Your task to perform on an android device: delete location history Image 0: 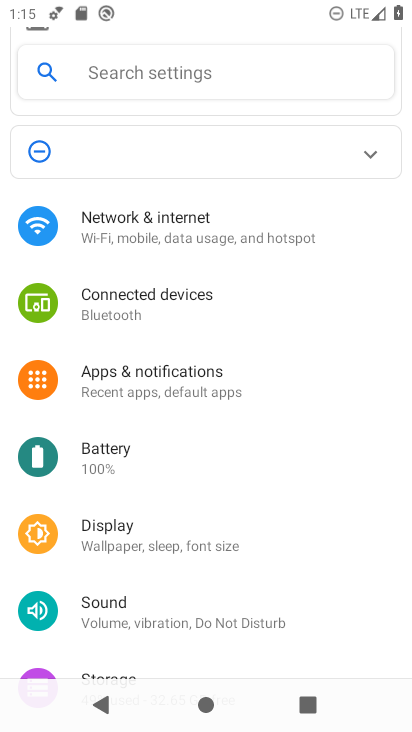
Step 0: press back button
Your task to perform on an android device: delete location history Image 1: 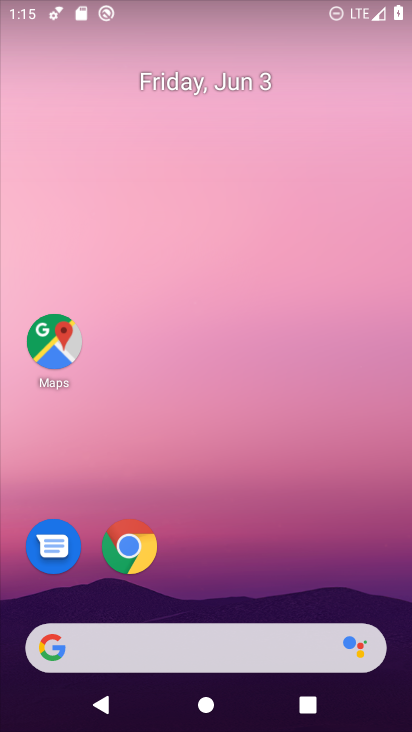
Step 1: click (52, 344)
Your task to perform on an android device: delete location history Image 2: 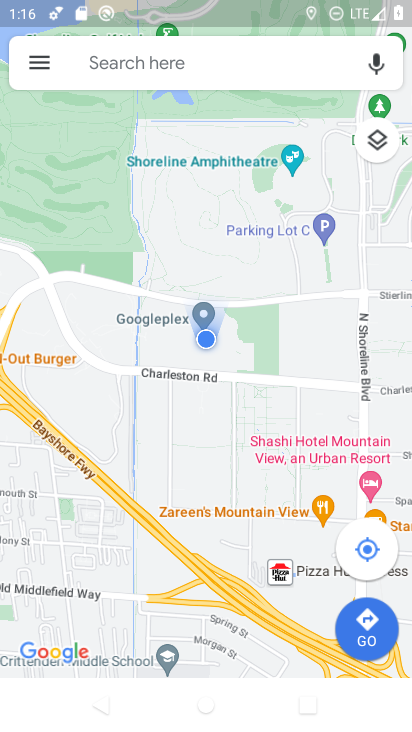
Step 2: click (35, 63)
Your task to perform on an android device: delete location history Image 3: 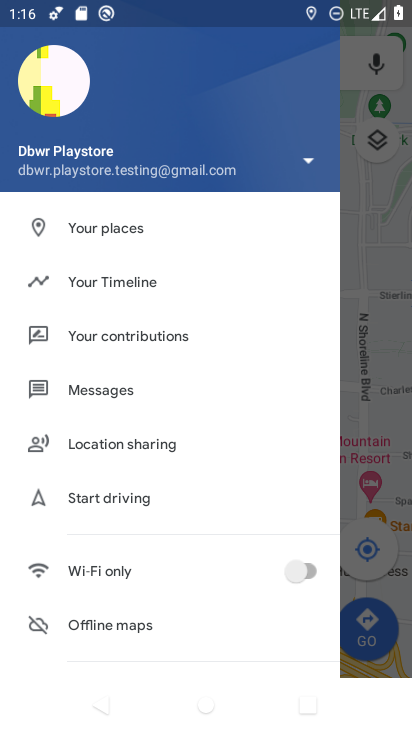
Step 3: drag from (120, 415) to (148, 332)
Your task to perform on an android device: delete location history Image 4: 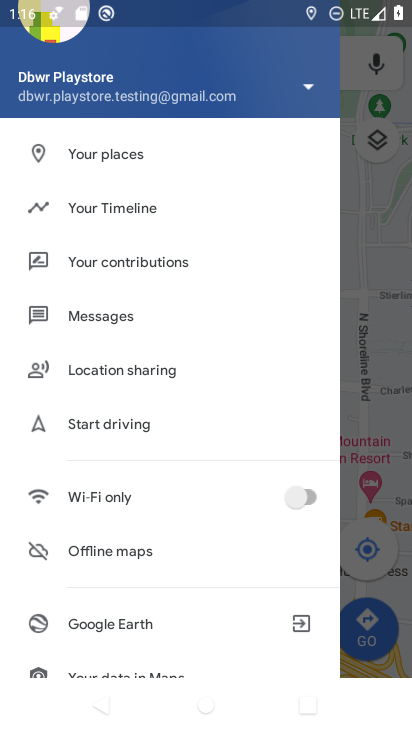
Step 4: drag from (89, 397) to (121, 325)
Your task to perform on an android device: delete location history Image 5: 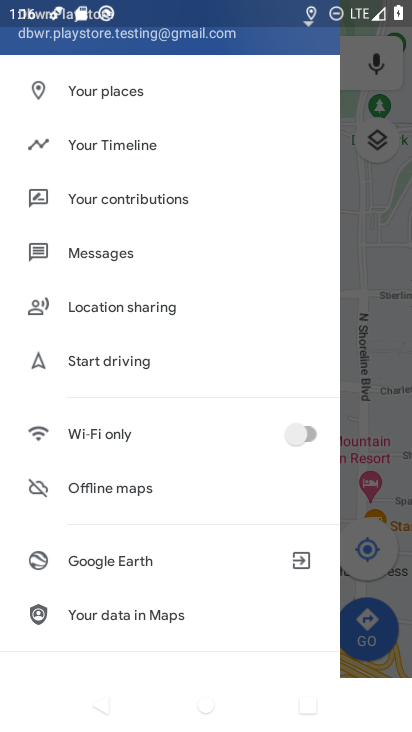
Step 5: drag from (96, 380) to (147, 309)
Your task to perform on an android device: delete location history Image 6: 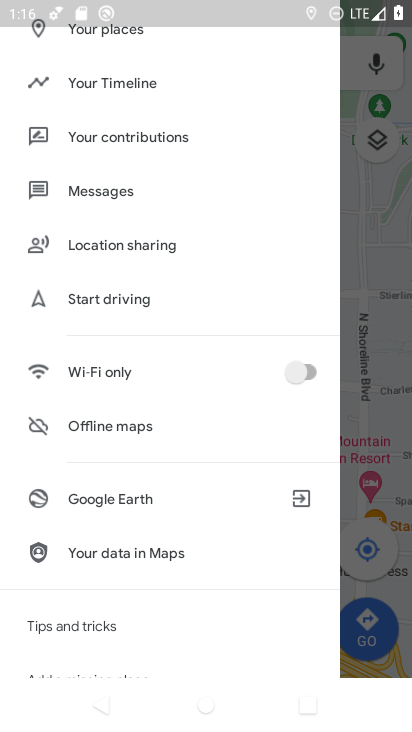
Step 6: drag from (89, 398) to (127, 333)
Your task to perform on an android device: delete location history Image 7: 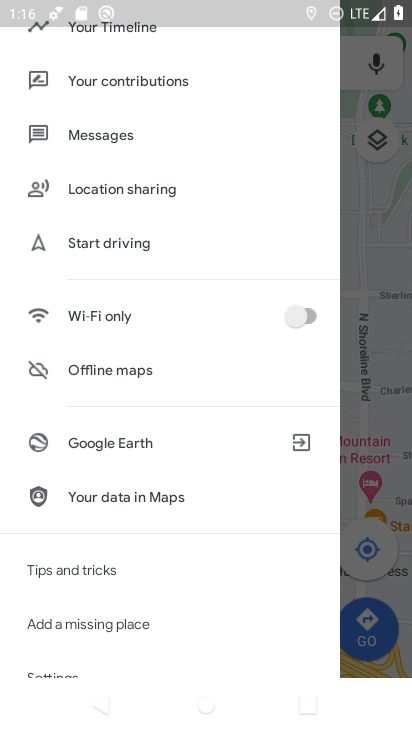
Step 7: drag from (83, 393) to (162, 307)
Your task to perform on an android device: delete location history Image 8: 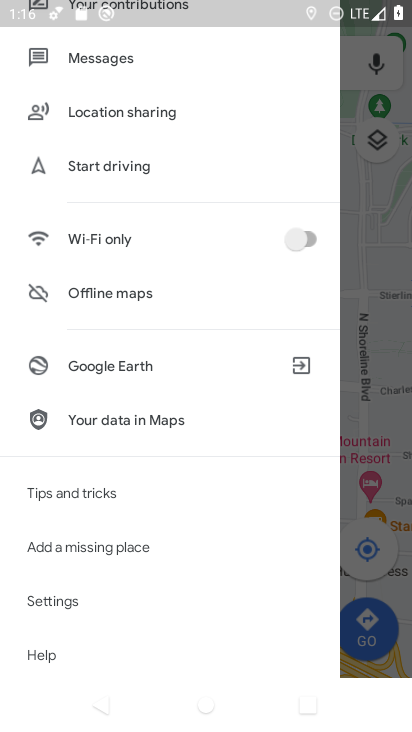
Step 8: click (55, 603)
Your task to perform on an android device: delete location history Image 9: 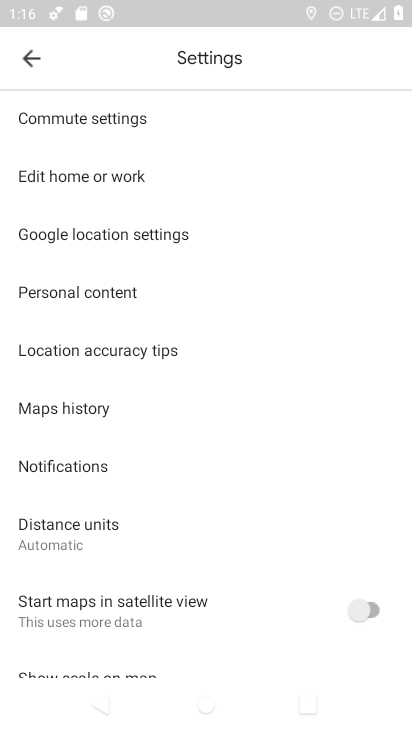
Step 9: click (109, 297)
Your task to perform on an android device: delete location history Image 10: 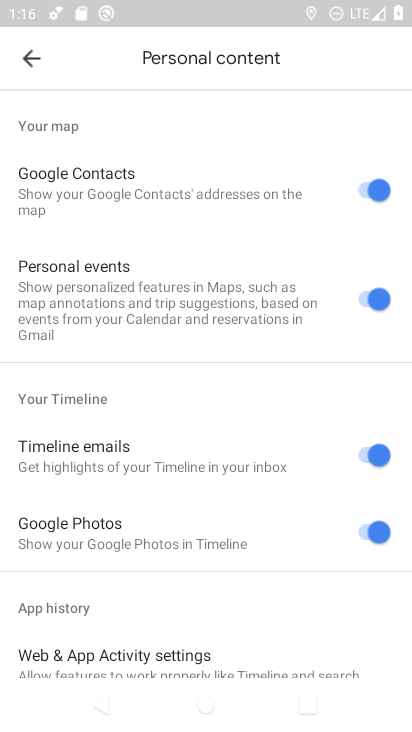
Step 10: drag from (141, 393) to (200, 307)
Your task to perform on an android device: delete location history Image 11: 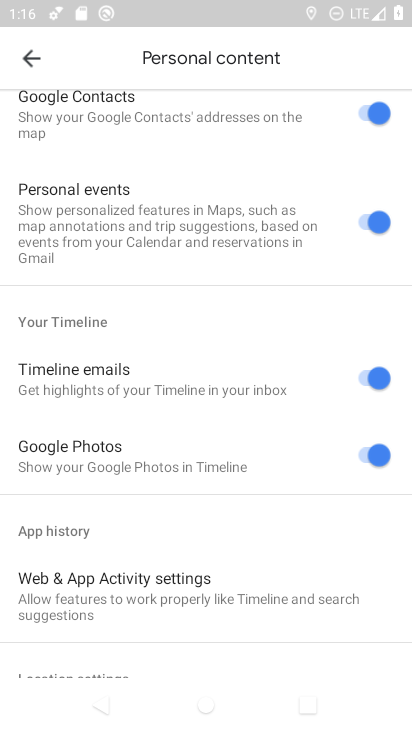
Step 11: drag from (133, 426) to (222, 323)
Your task to perform on an android device: delete location history Image 12: 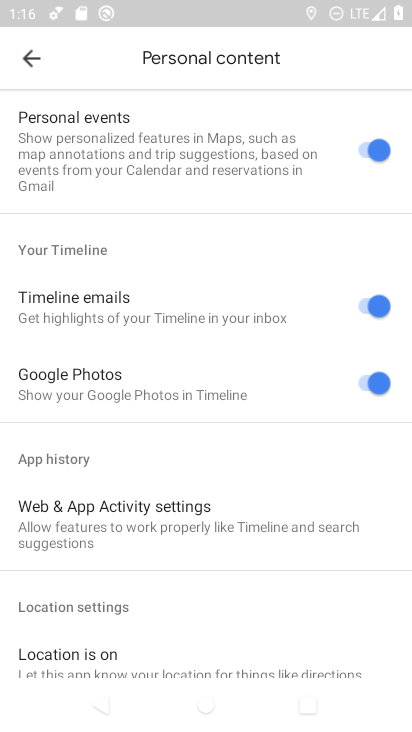
Step 12: drag from (128, 441) to (201, 351)
Your task to perform on an android device: delete location history Image 13: 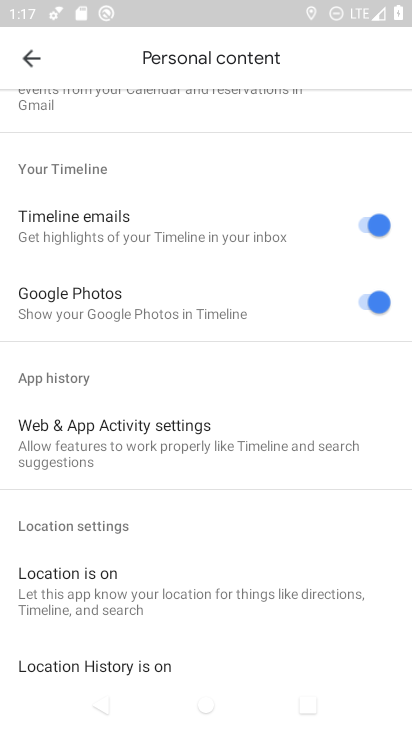
Step 13: drag from (148, 509) to (205, 412)
Your task to perform on an android device: delete location history Image 14: 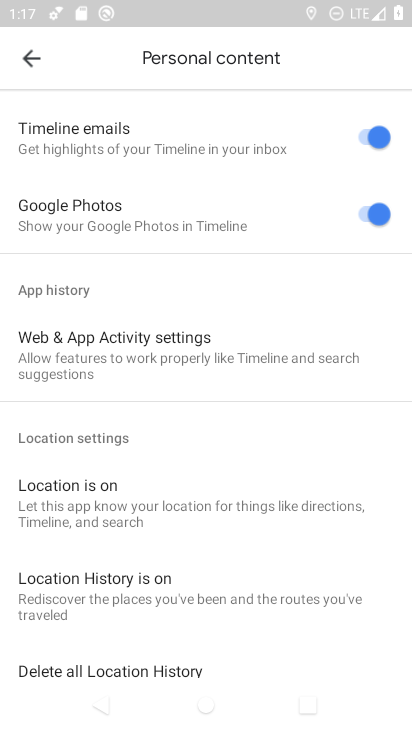
Step 14: drag from (143, 534) to (206, 431)
Your task to perform on an android device: delete location history Image 15: 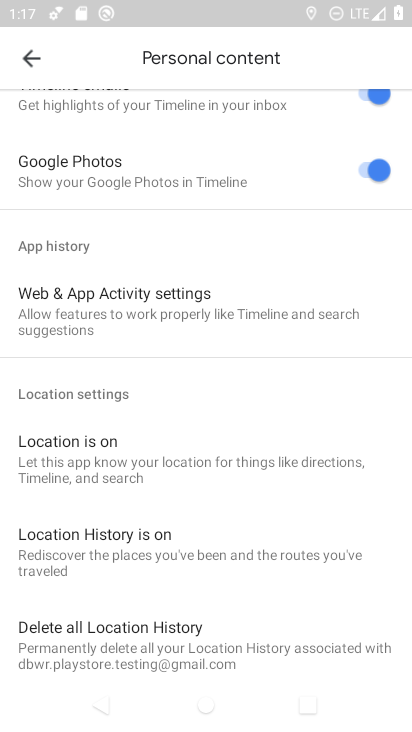
Step 15: drag from (153, 530) to (228, 419)
Your task to perform on an android device: delete location history Image 16: 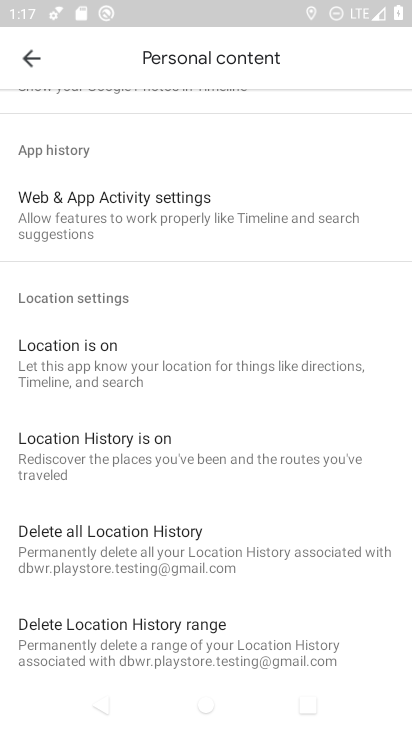
Step 16: click (151, 535)
Your task to perform on an android device: delete location history Image 17: 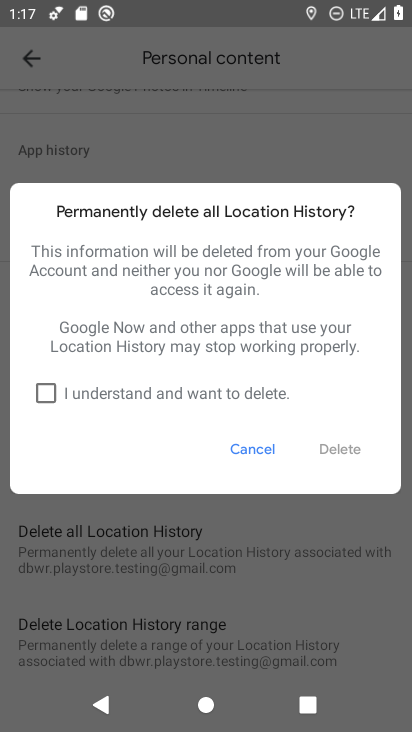
Step 17: click (48, 389)
Your task to perform on an android device: delete location history Image 18: 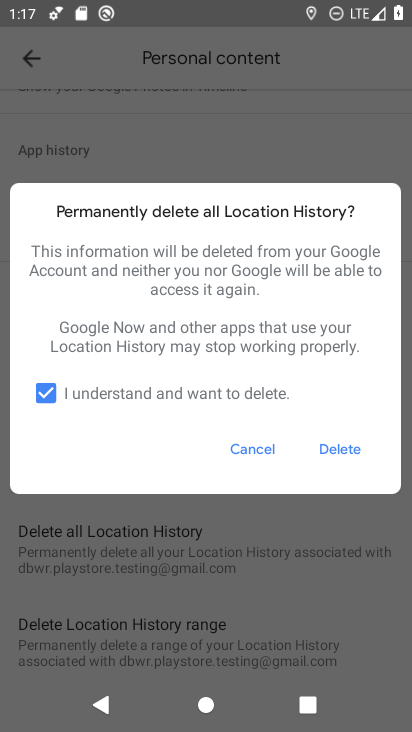
Step 18: click (338, 446)
Your task to perform on an android device: delete location history Image 19: 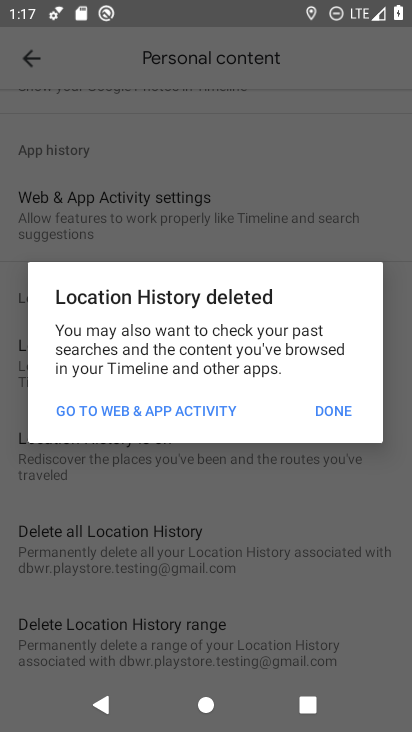
Step 19: click (350, 410)
Your task to perform on an android device: delete location history Image 20: 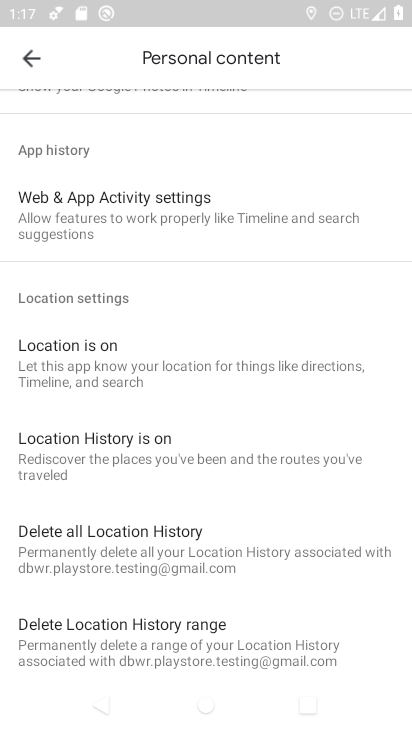
Step 20: task complete